Your task to perform on an android device: move a message to another label in the gmail app Image 0: 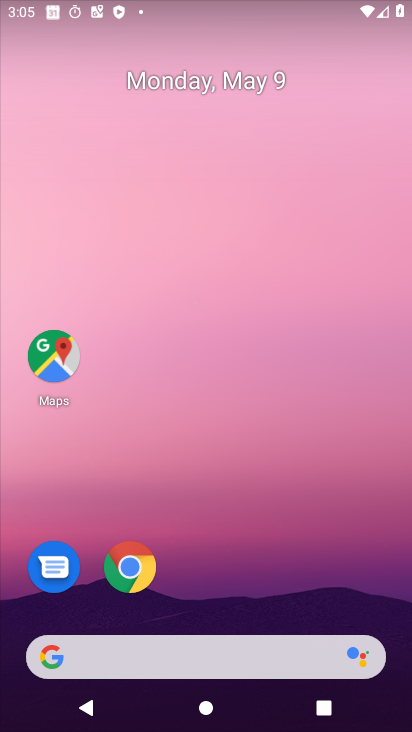
Step 0: drag from (264, 538) to (237, 150)
Your task to perform on an android device: move a message to another label in the gmail app Image 1: 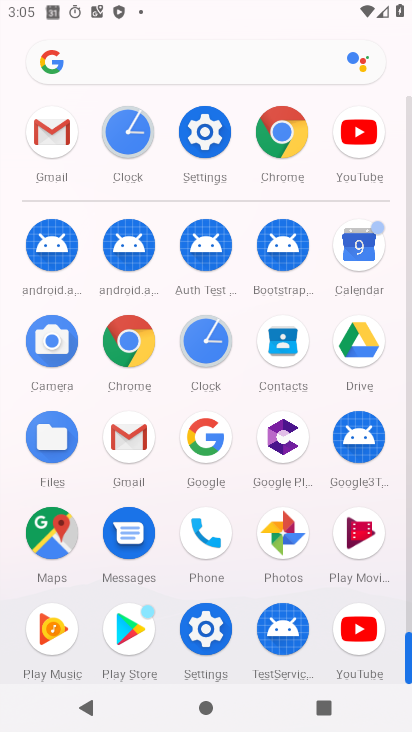
Step 1: click (135, 442)
Your task to perform on an android device: move a message to another label in the gmail app Image 2: 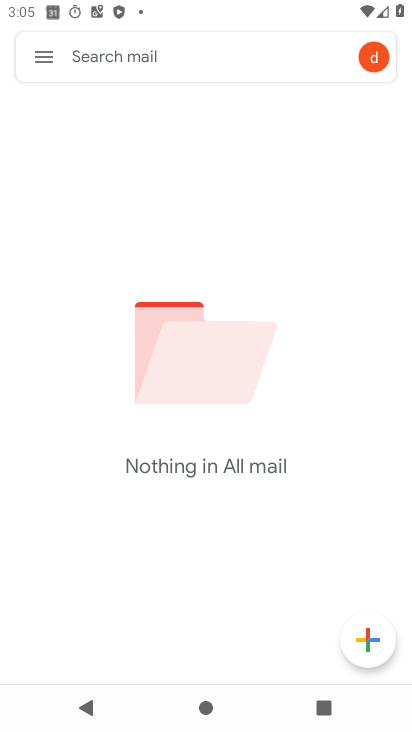
Step 2: click (42, 56)
Your task to perform on an android device: move a message to another label in the gmail app Image 3: 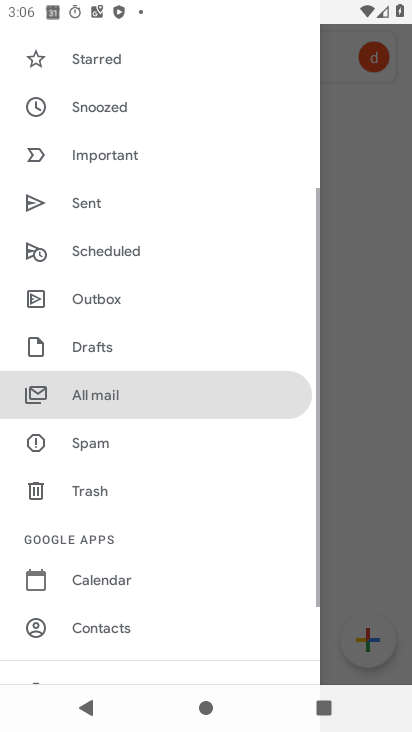
Step 3: drag from (141, 186) to (100, 537)
Your task to perform on an android device: move a message to another label in the gmail app Image 4: 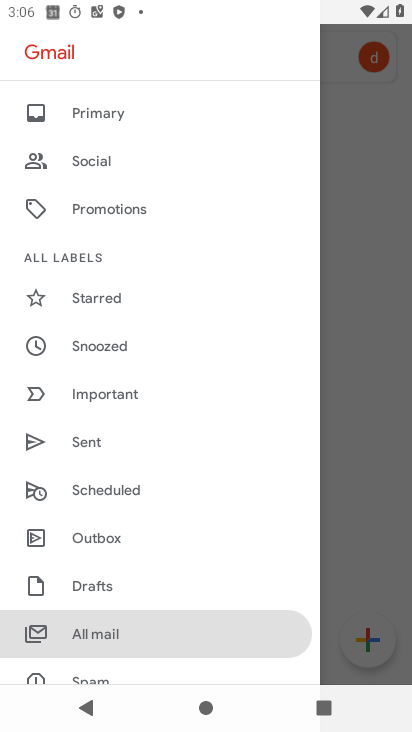
Step 4: click (77, 114)
Your task to perform on an android device: move a message to another label in the gmail app Image 5: 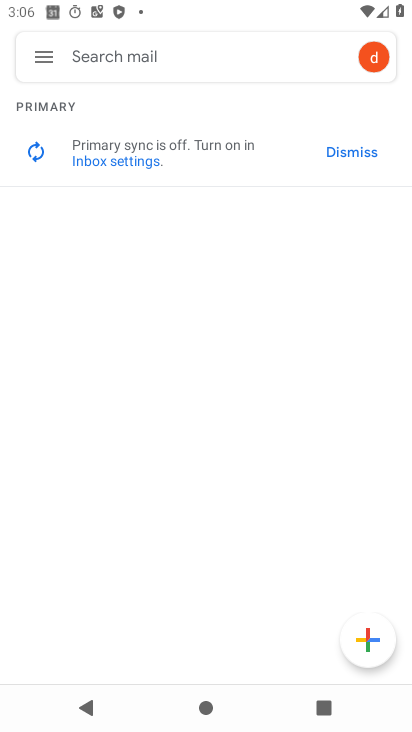
Step 5: task complete